Your task to perform on an android device: Open Reddit.com Image 0: 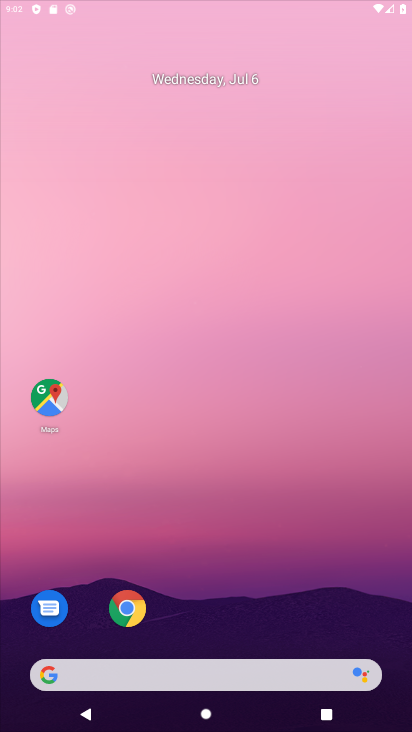
Step 0: click (200, 664)
Your task to perform on an android device: Open Reddit.com Image 1: 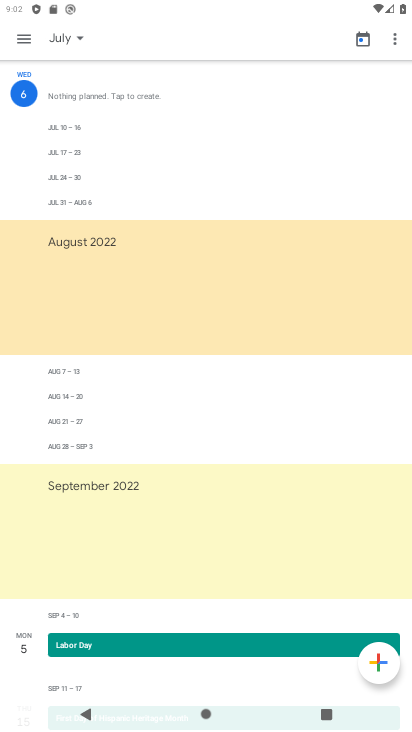
Step 1: press home button
Your task to perform on an android device: Open Reddit.com Image 2: 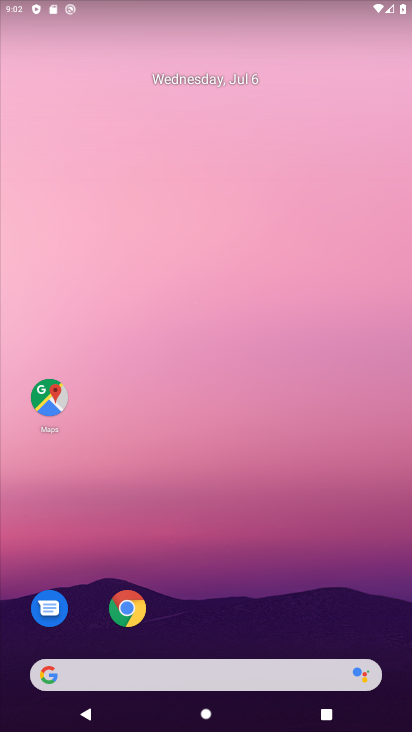
Step 2: click (124, 610)
Your task to perform on an android device: Open Reddit.com Image 3: 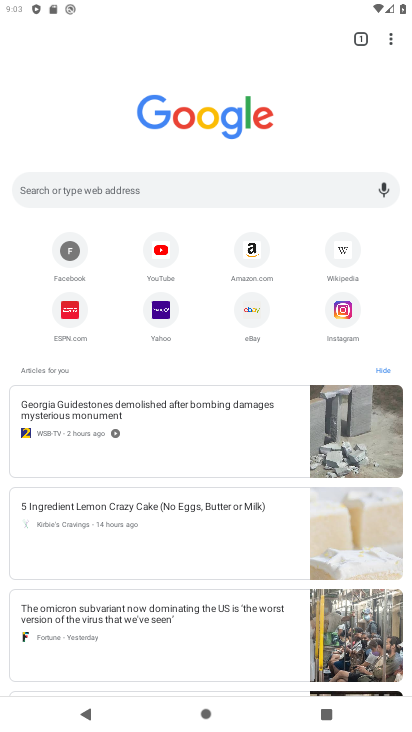
Step 3: click (178, 192)
Your task to perform on an android device: Open Reddit.com Image 4: 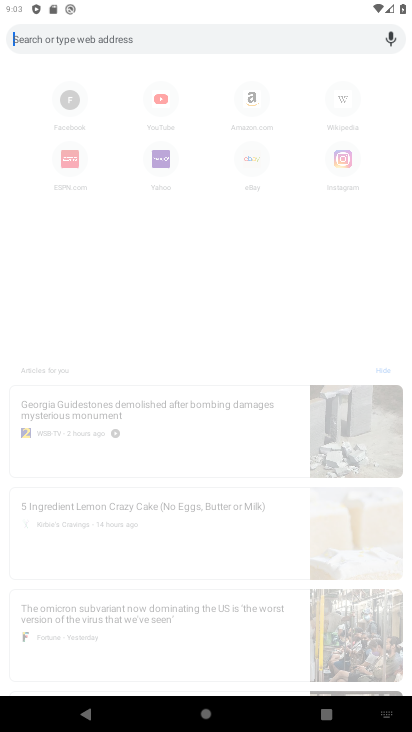
Step 4: type "reddit.com"
Your task to perform on an android device: Open Reddit.com Image 5: 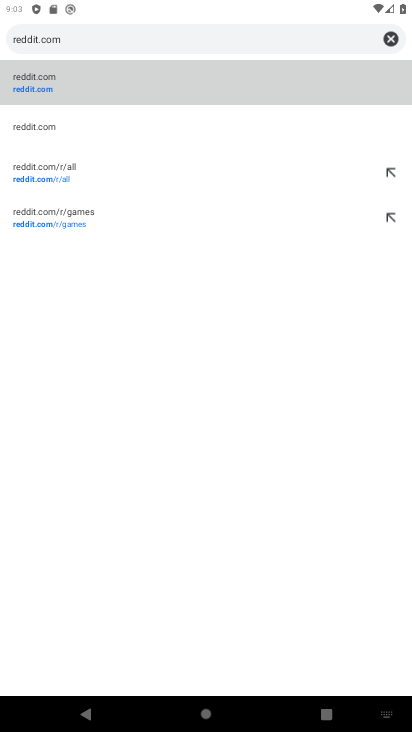
Step 5: click (32, 128)
Your task to perform on an android device: Open Reddit.com Image 6: 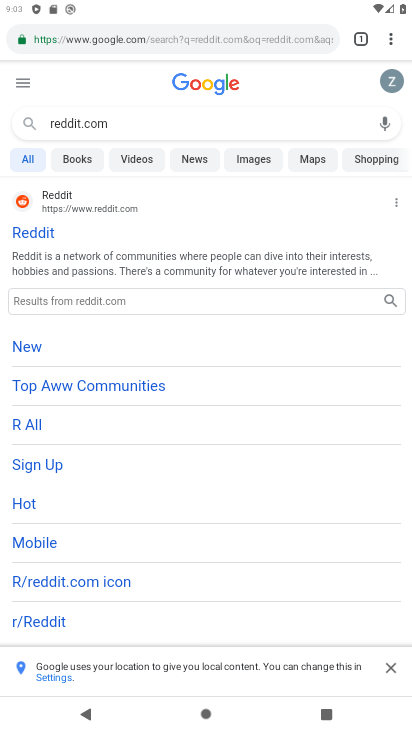
Step 6: task complete